Your task to perform on an android device: turn off improve location accuracy Image 0: 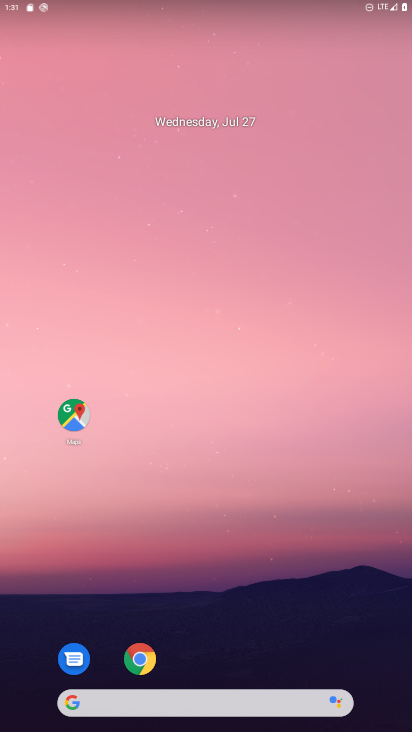
Step 0: drag from (214, 622) to (230, 2)
Your task to perform on an android device: turn off improve location accuracy Image 1: 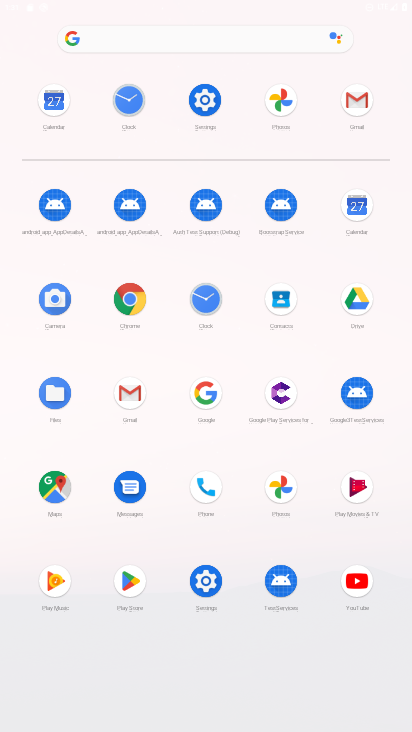
Step 1: click (201, 113)
Your task to perform on an android device: turn off improve location accuracy Image 2: 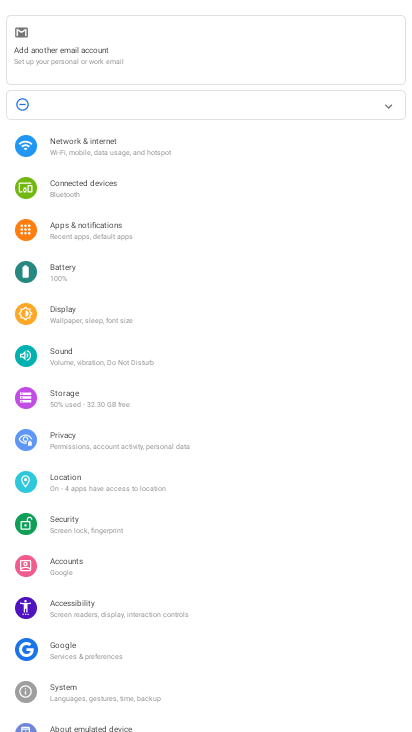
Step 2: click (136, 484)
Your task to perform on an android device: turn off improve location accuracy Image 3: 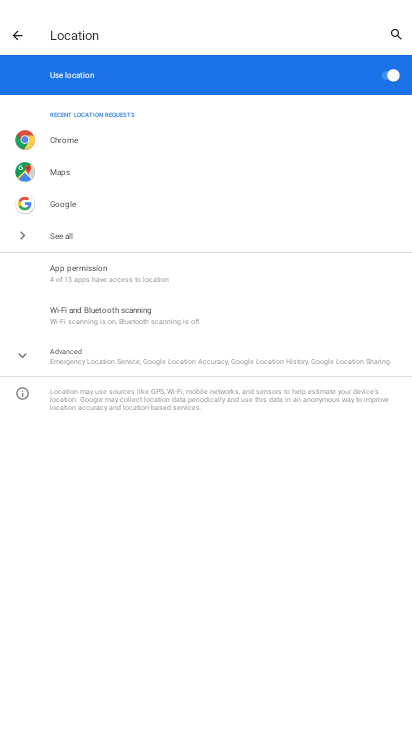
Step 3: click (89, 365)
Your task to perform on an android device: turn off improve location accuracy Image 4: 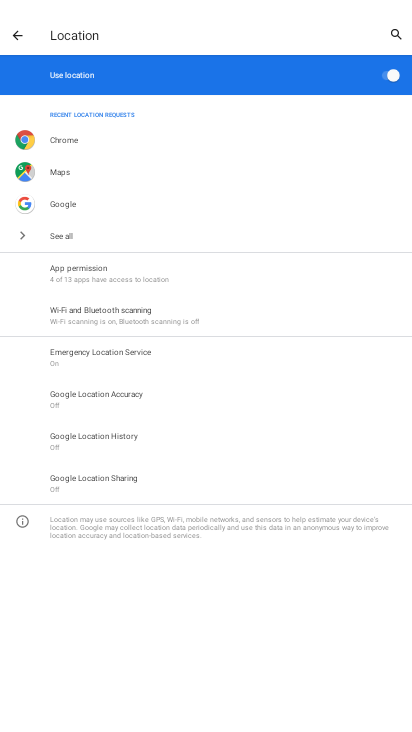
Step 4: click (118, 437)
Your task to perform on an android device: turn off improve location accuracy Image 5: 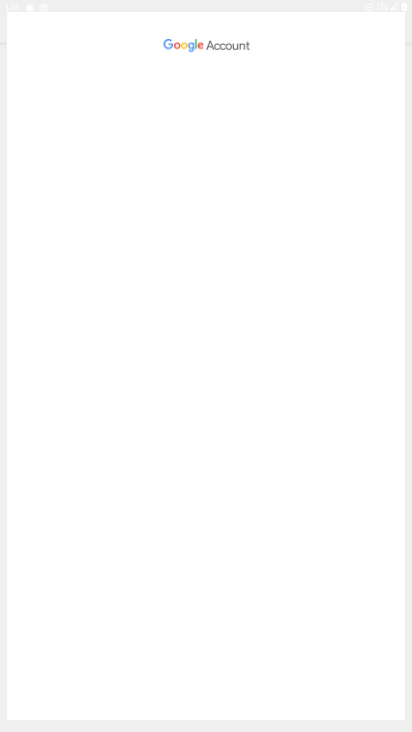
Step 5: click (21, 33)
Your task to perform on an android device: turn off improve location accuracy Image 6: 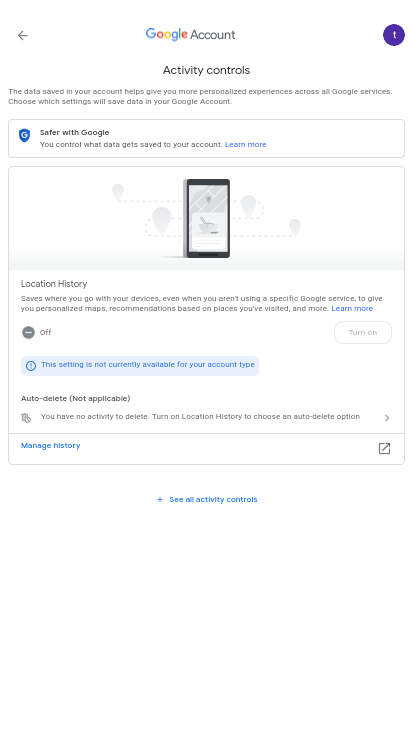
Step 6: click (25, 35)
Your task to perform on an android device: turn off improve location accuracy Image 7: 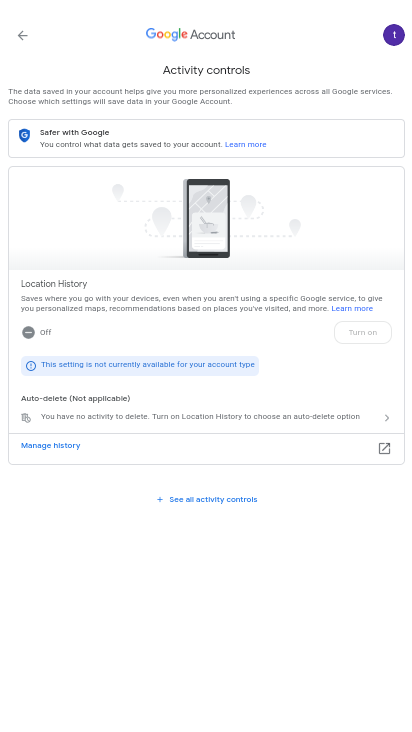
Step 7: click (24, 36)
Your task to perform on an android device: turn off improve location accuracy Image 8: 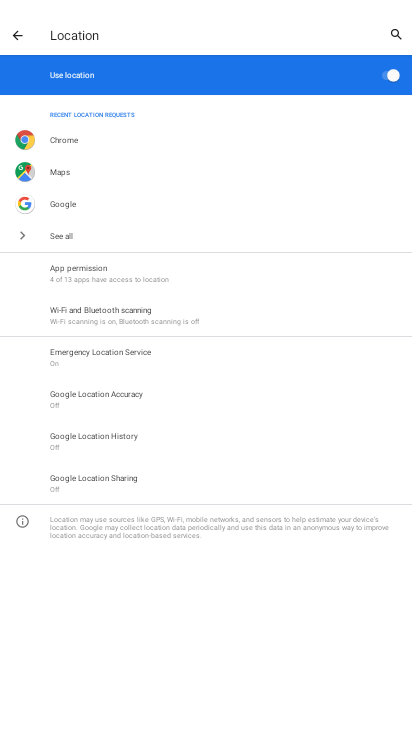
Step 8: click (107, 405)
Your task to perform on an android device: turn off improve location accuracy Image 9: 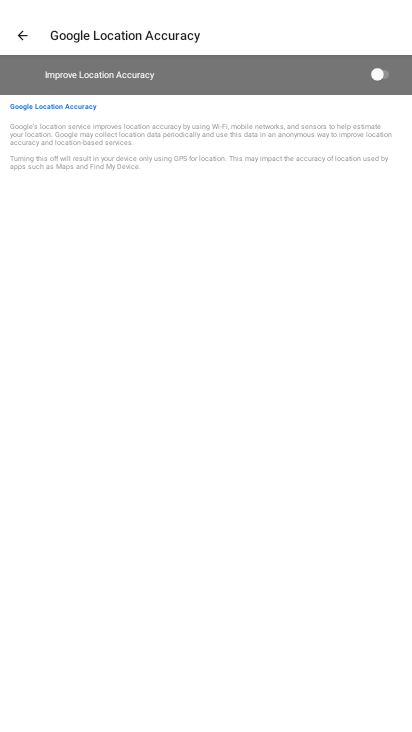
Step 9: click (373, 81)
Your task to perform on an android device: turn off improve location accuracy Image 10: 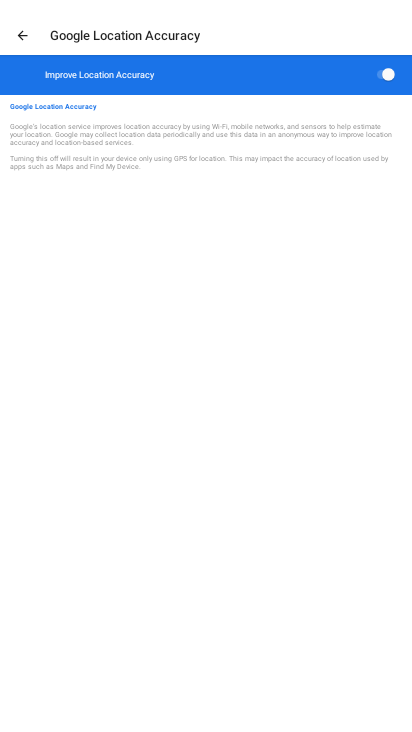
Step 10: click (386, 76)
Your task to perform on an android device: turn off improve location accuracy Image 11: 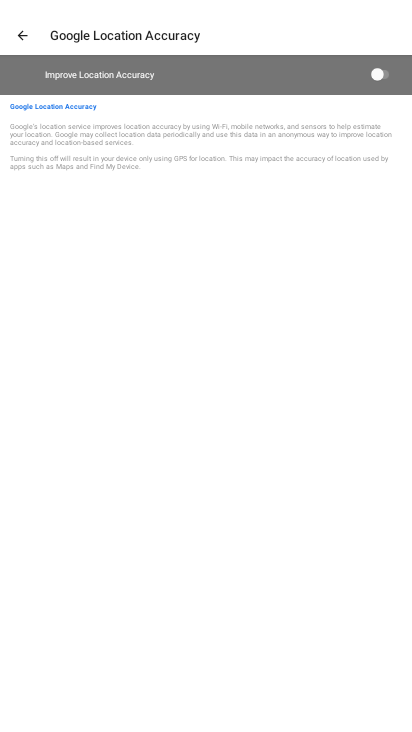
Step 11: task complete